Your task to perform on an android device: toggle data saver in the chrome app Image 0: 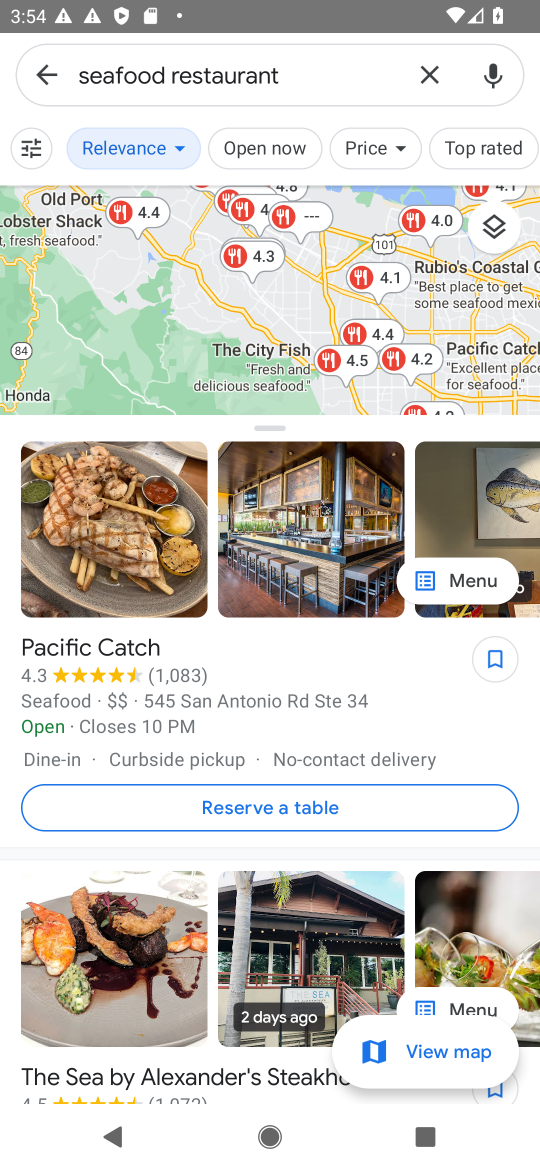
Step 0: press home button
Your task to perform on an android device: toggle data saver in the chrome app Image 1: 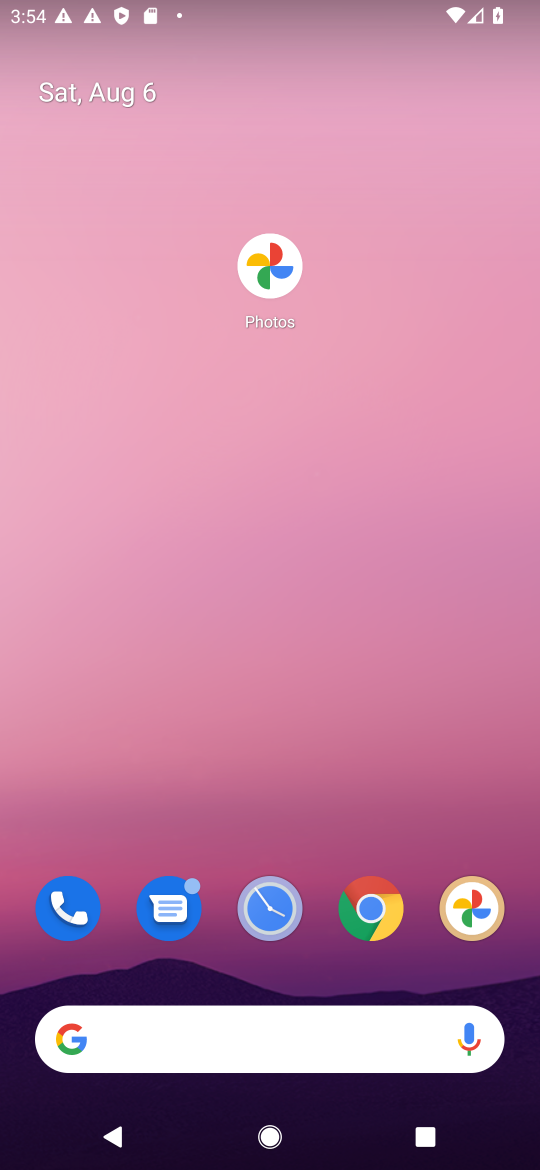
Step 1: click (381, 922)
Your task to perform on an android device: toggle data saver in the chrome app Image 2: 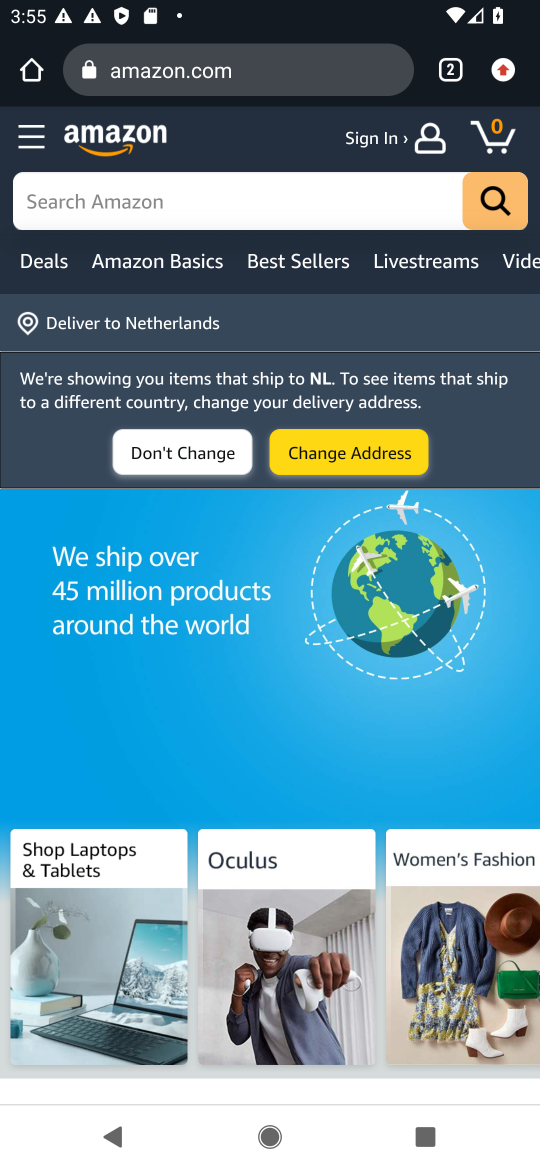
Step 2: click (497, 68)
Your task to perform on an android device: toggle data saver in the chrome app Image 3: 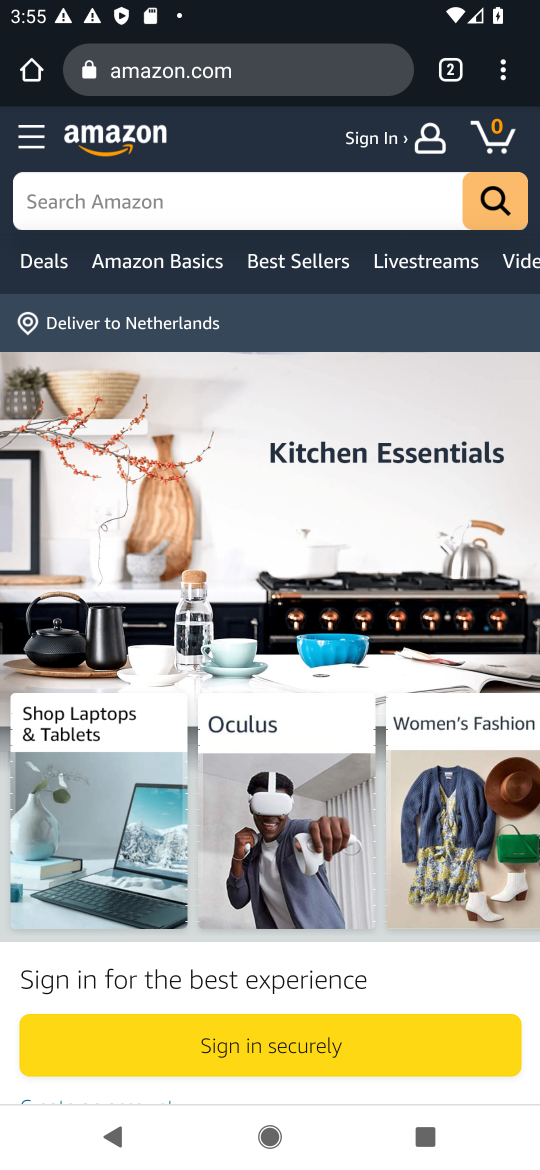
Step 3: click (508, 81)
Your task to perform on an android device: toggle data saver in the chrome app Image 4: 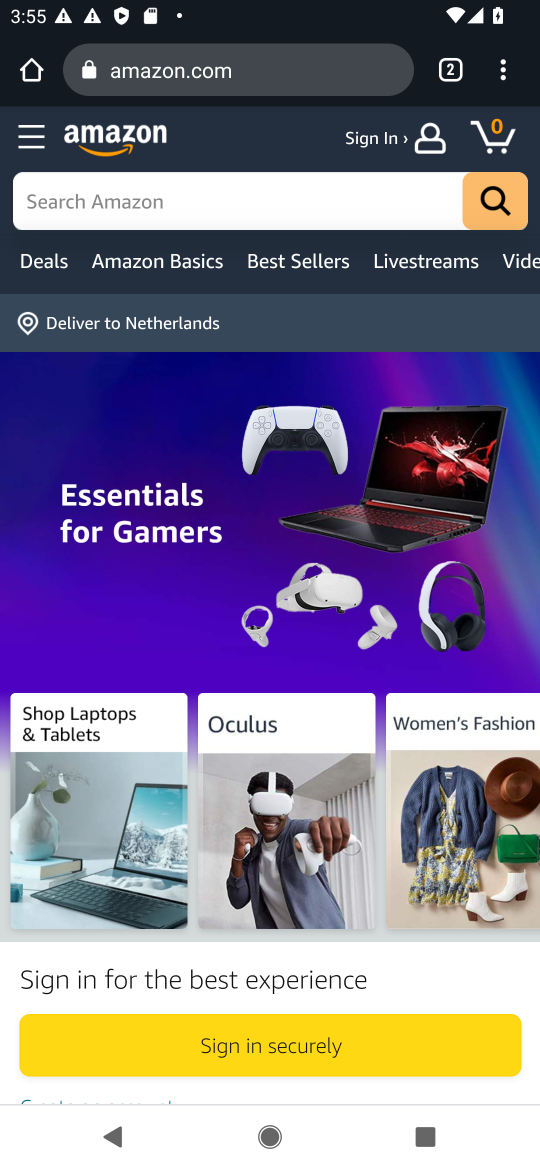
Step 4: click (515, 78)
Your task to perform on an android device: toggle data saver in the chrome app Image 5: 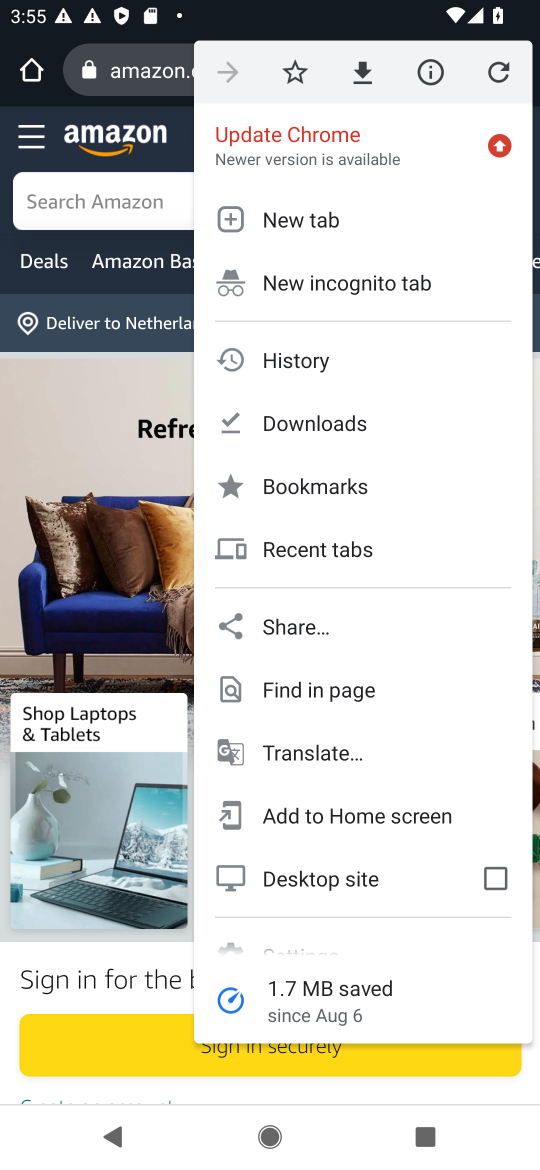
Step 5: drag from (309, 909) to (314, 729)
Your task to perform on an android device: toggle data saver in the chrome app Image 6: 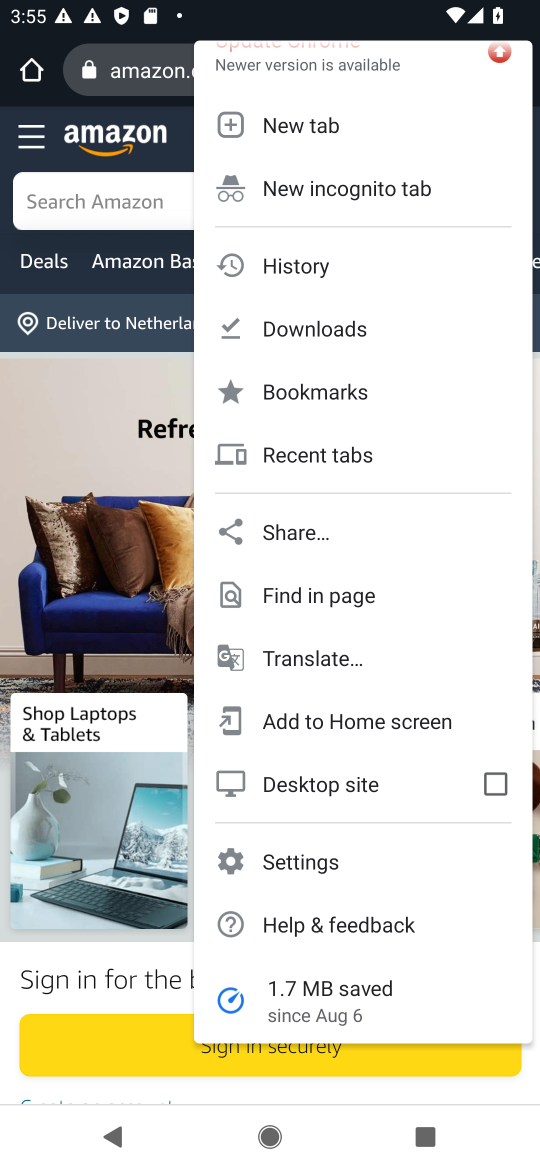
Step 6: click (294, 863)
Your task to perform on an android device: toggle data saver in the chrome app Image 7: 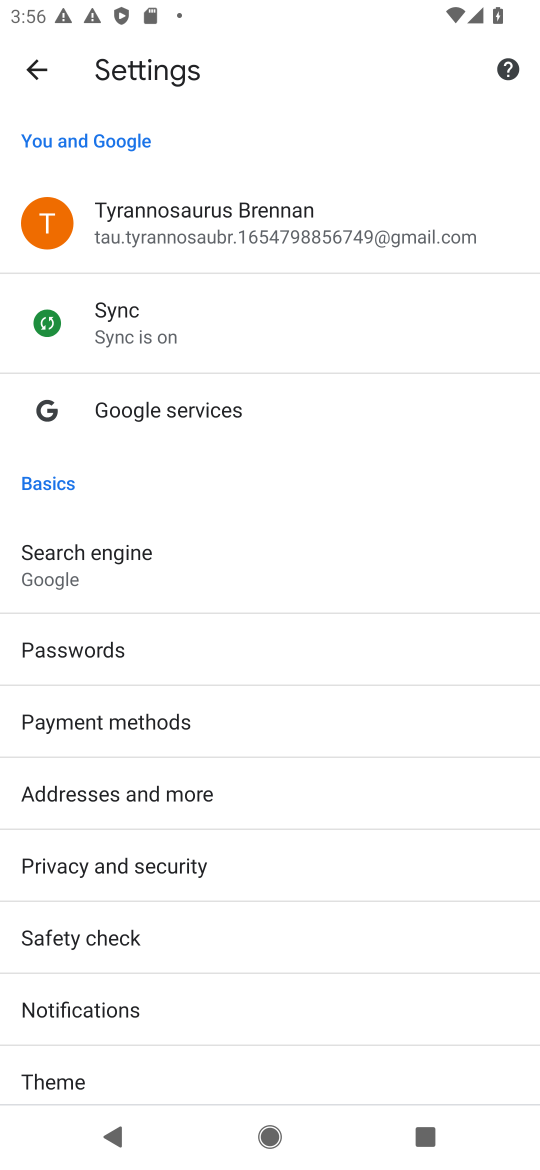
Step 7: drag from (81, 894) to (159, 183)
Your task to perform on an android device: toggle data saver in the chrome app Image 8: 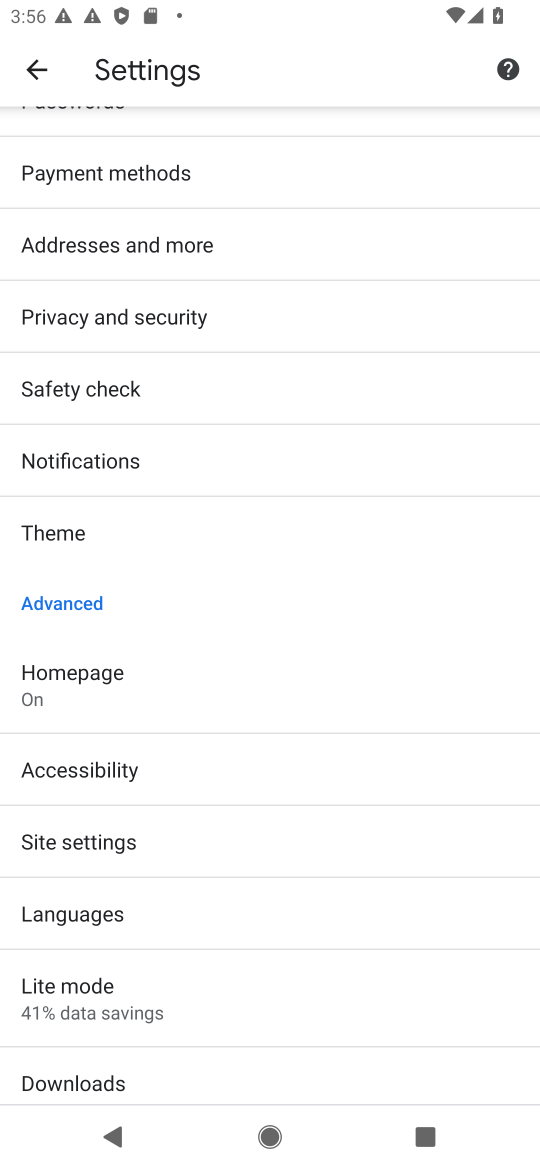
Step 8: click (116, 1006)
Your task to perform on an android device: toggle data saver in the chrome app Image 9: 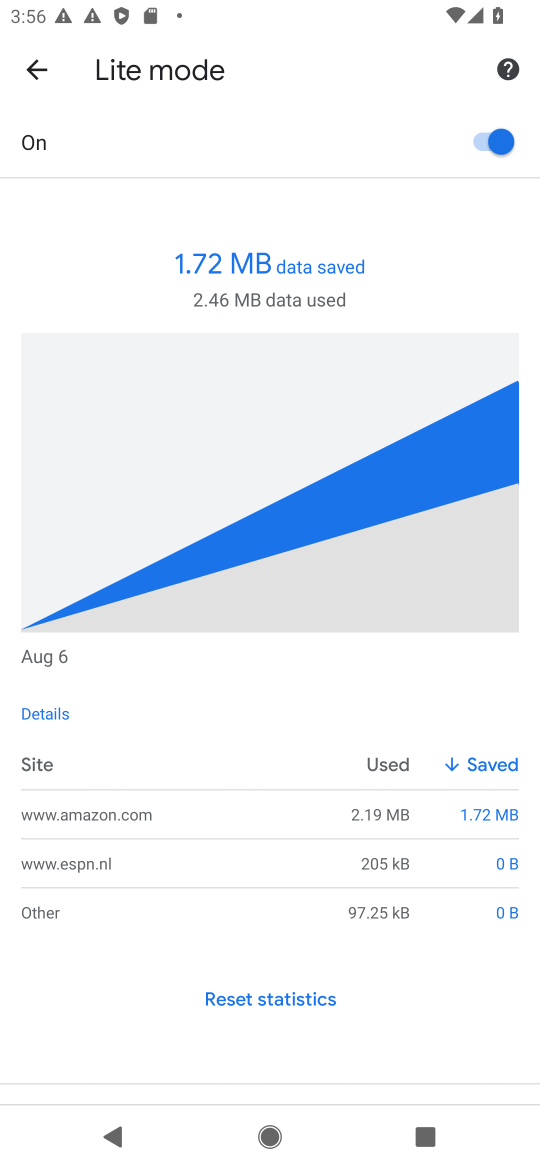
Step 9: click (453, 136)
Your task to perform on an android device: toggle data saver in the chrome app Image 10: 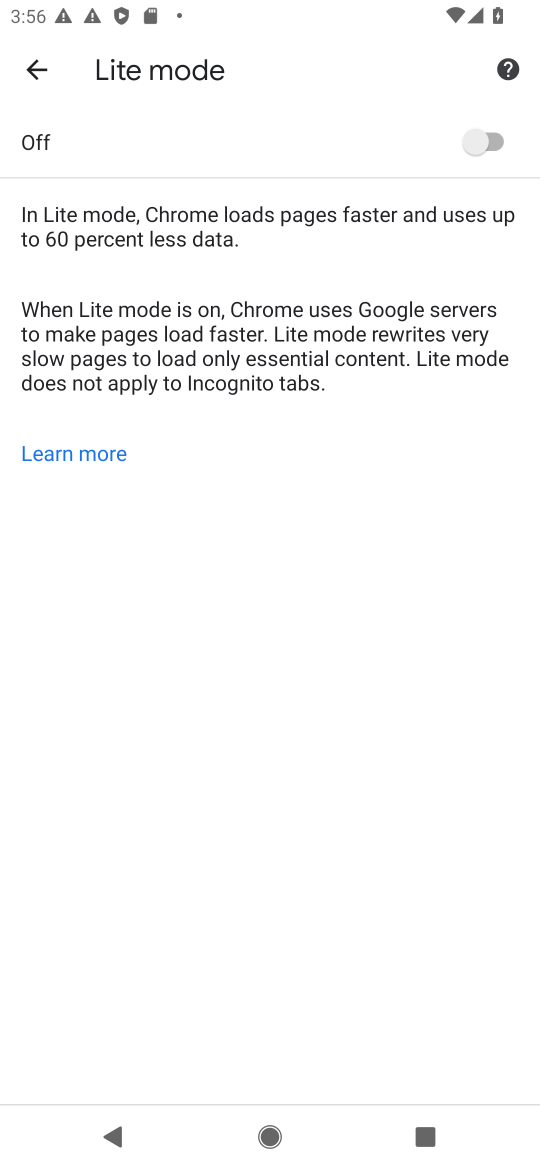
Step 10: task complete